Your task to perform on an android device: toggle sleep mode Image 0: 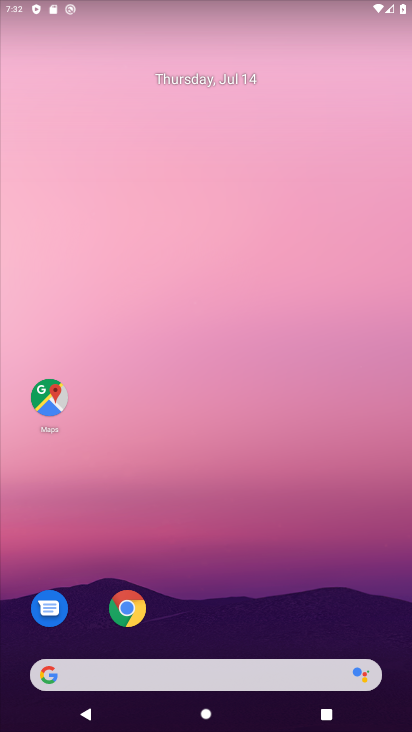
Step 0: drag from (250, 565) to (185, 162)
Your task to perform on an android device: toggle sleep mode Image 1: 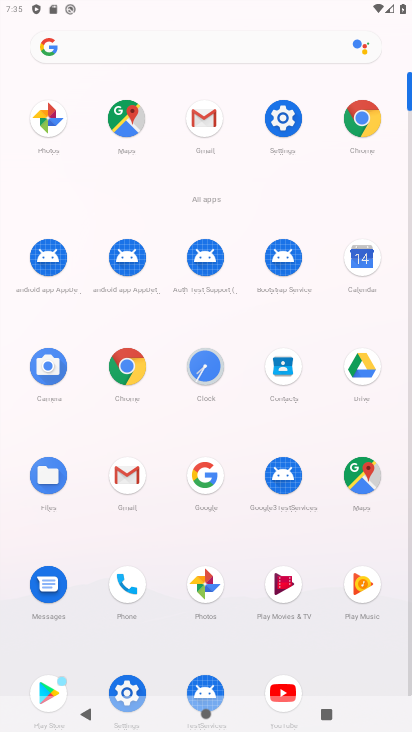
Step 1: click (280, 118)
Your task to perform on an android device: toggle sleep mode Image 2: 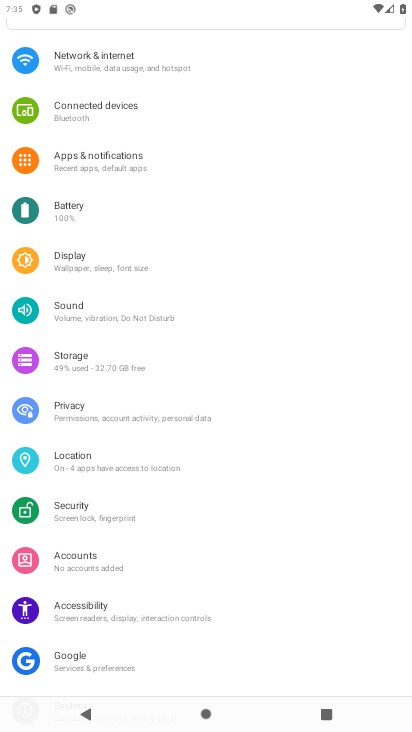
Step 2: click (69, 257)
Your task to perform on an android device: toggle sleep mode Image 3: 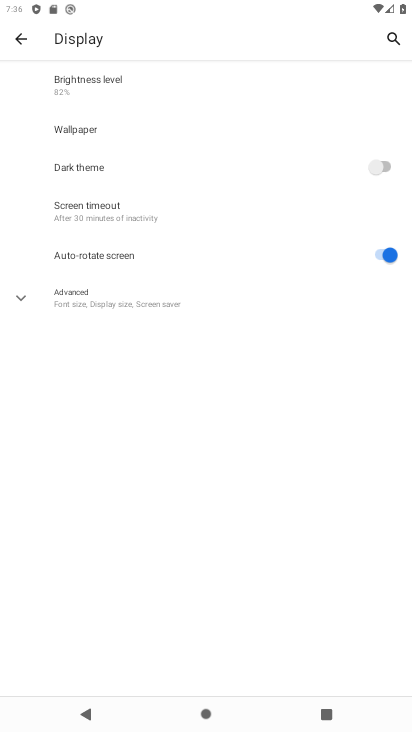
Step 3: task complete